Your task to perform on an android device: show emergency info Image 0: 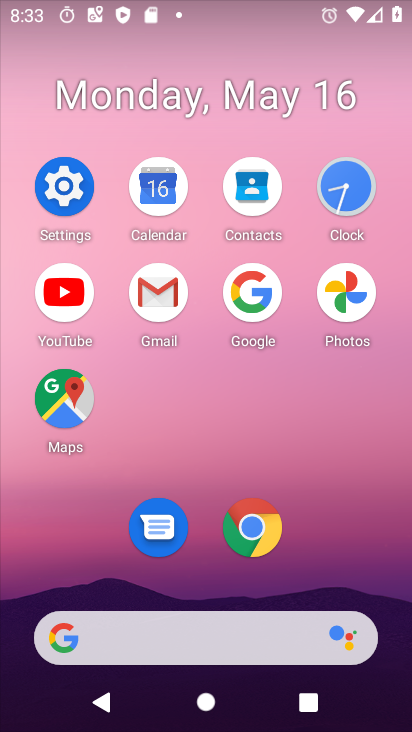
Step 0: click (55, 192)
Your task to perform on an android device: show emergency info Image 1: 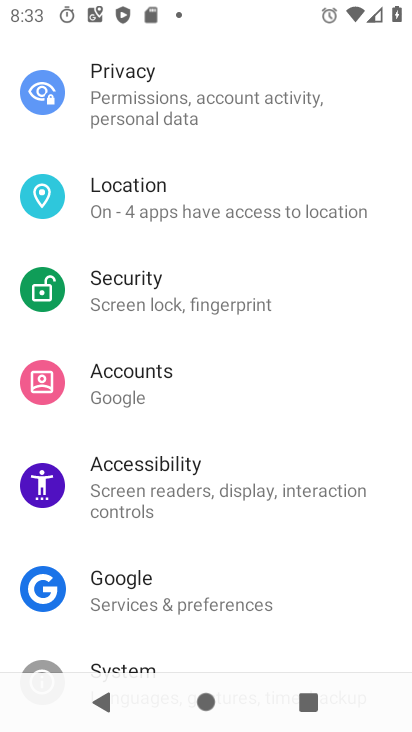
Step 1: drag from (282, 557) to (301, 151)
Your task to perform on an android device: show emergency info Image 2: 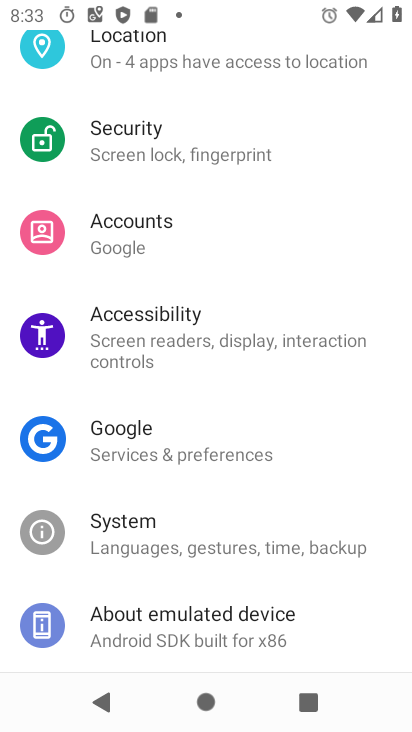
Step 2: drag from (232, 614) to (257, 274)
Your task to perform on an android device: show emergency info Image 3: 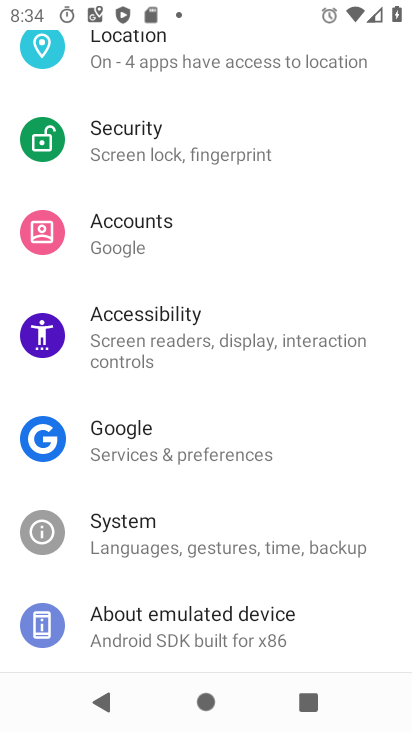
Step 3: click (243, 618)
Your task to perform on an android device: show emergency info Image 4: 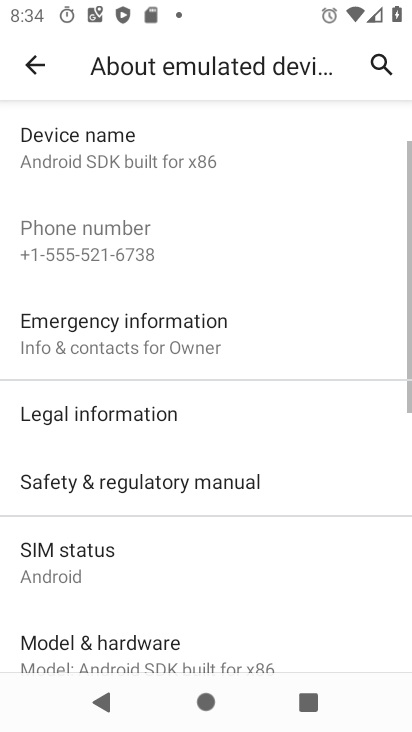
Step 4: click (208, 333)
Your task to perform on an android device: show emergency info Image 5: 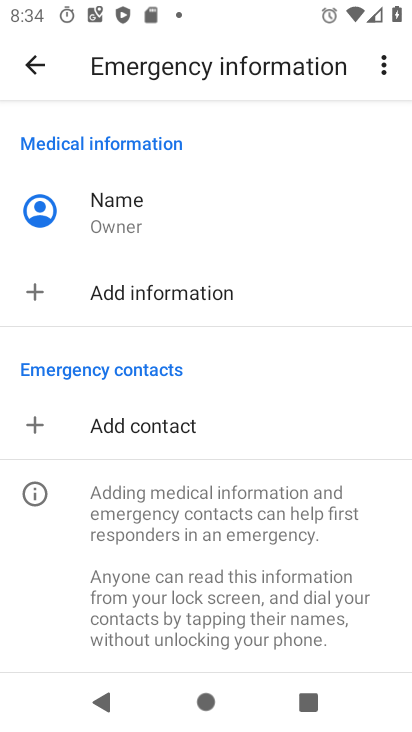
Step 5: task complete